Your task to perform on an android device: turn on improve location accuracy Image 0: 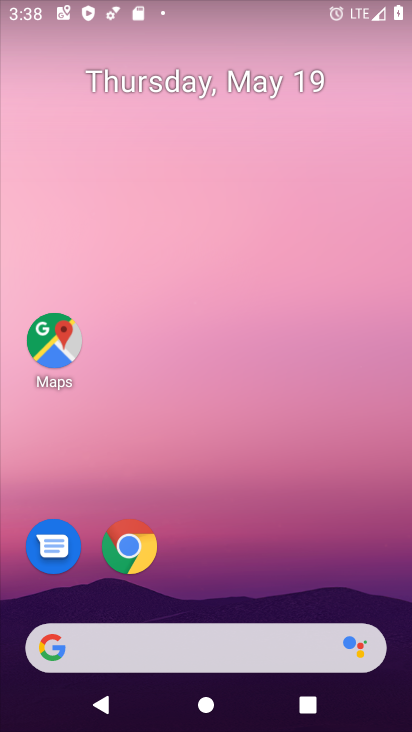
Step 0: drag from (201, 609) to (287, 7)
Your task to perform on an android device: turn on improve location accuracy Image 1: 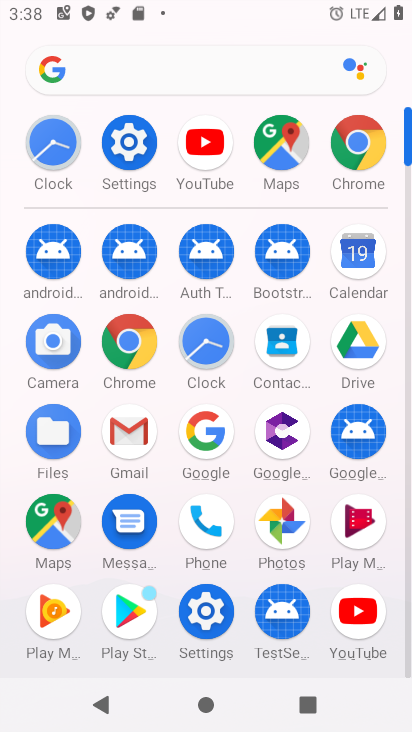
Step 1: click (202, 603)
Your task to perform on an android device: turn on improve location accuracy Image 2: 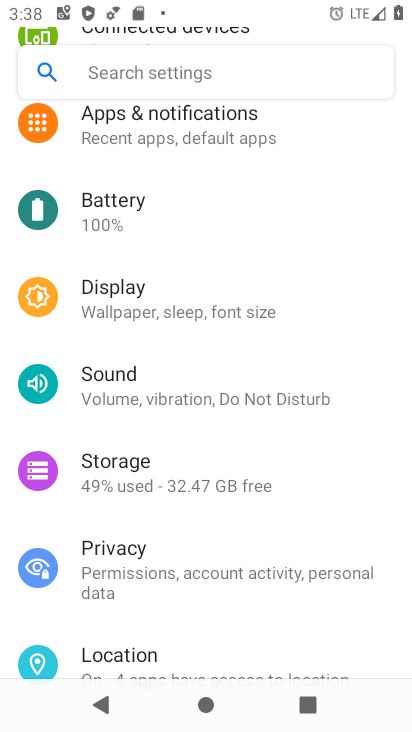
Step 2: click (171, 652)
Your task to perform on an android device: turn on improve location accuracy Image 3: 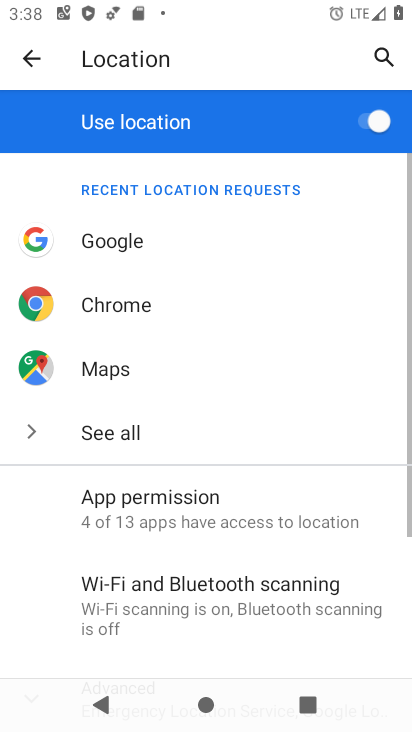
Step 3: drag from (158, 626) to (235, 231)
Your task to perform on an android device: turn on improve location accuracy Image 4: 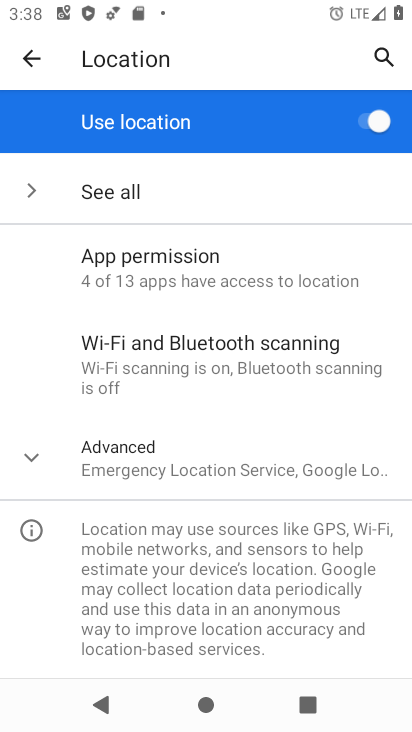
Step 4: click (31, 456)
Your task to perform on an android device: turn on improve location accuracy Image 5: 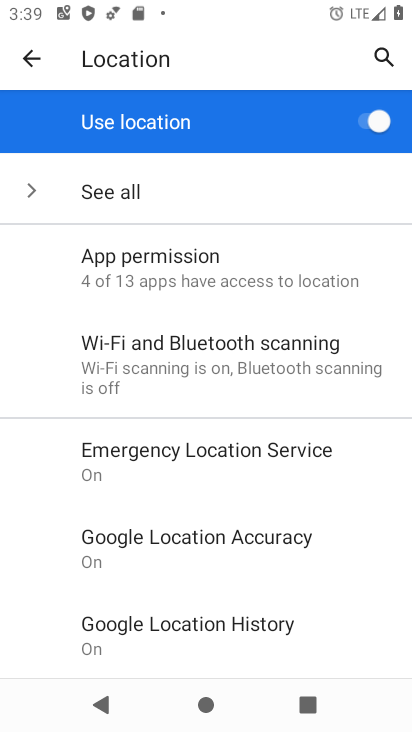
Step 5: click (203, 545)
Your task to perform on an android device: turn on improve location accuracy Image 6: 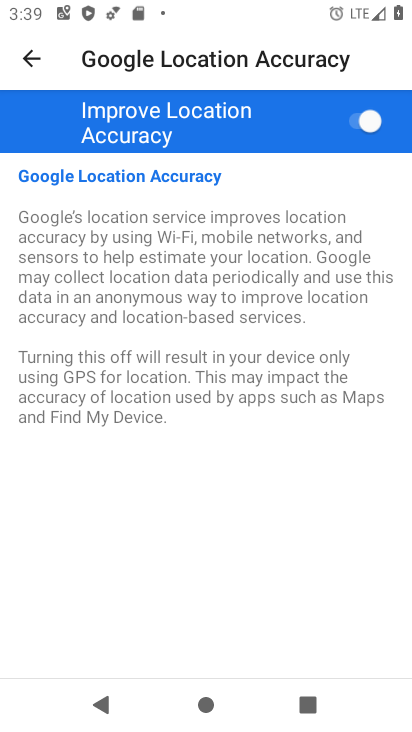
Step 6: task complete